Your task to perform on an android device: Open Chrome and go to settings Image 0: 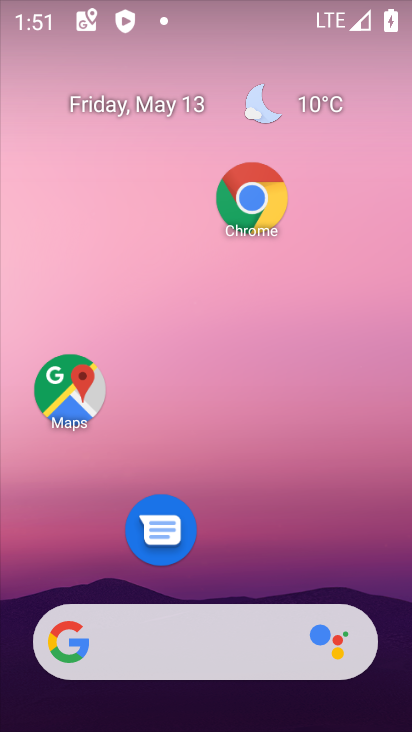
Step 0: click (241, 212)
Your task to perform on an android device: Open Chrome and go to settings Image 1: 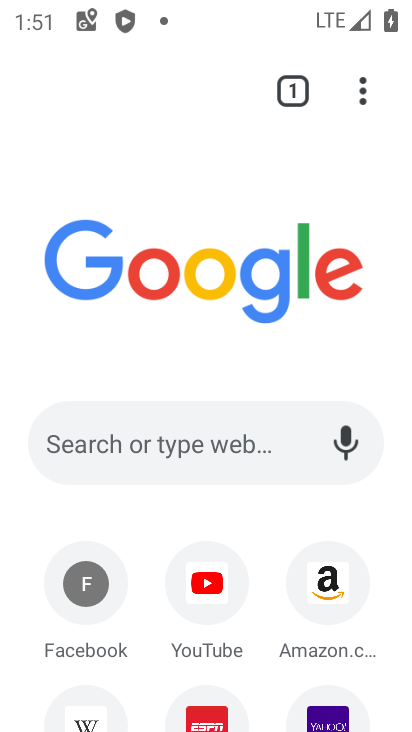
Step 1: task complete